Your task to perform on an android device: turn on the 12-hour format for clock Image 0: 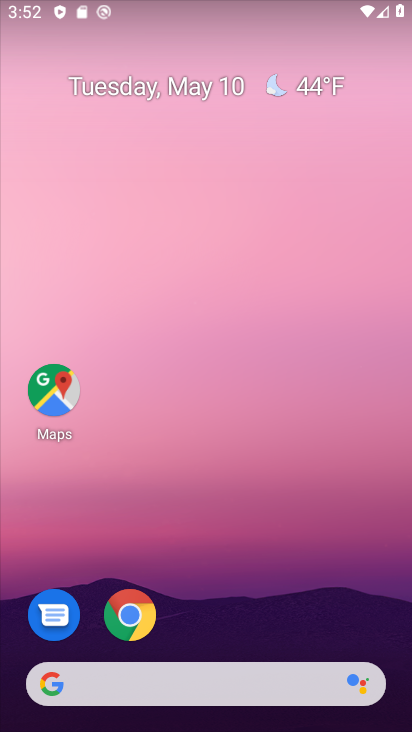
Step 0: drag from (196, 723) to (203, 358)
Your task to perform on an android device: turn on the 12-hour format for clock Image 1: 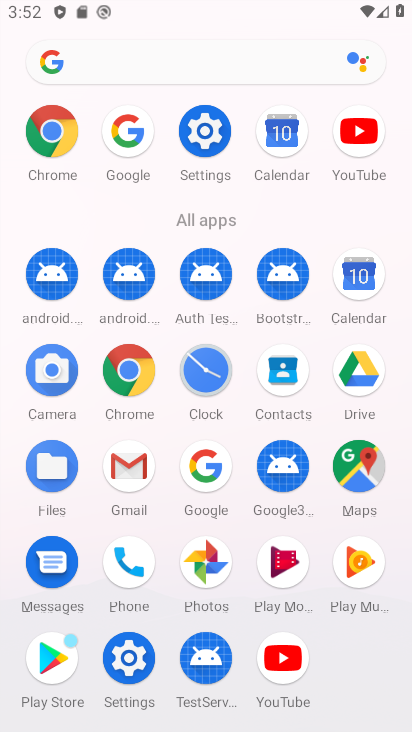
Step 1: click (207, 372)
Your task to perform on an android device: turn on the 12-hour format for clock Image 2: 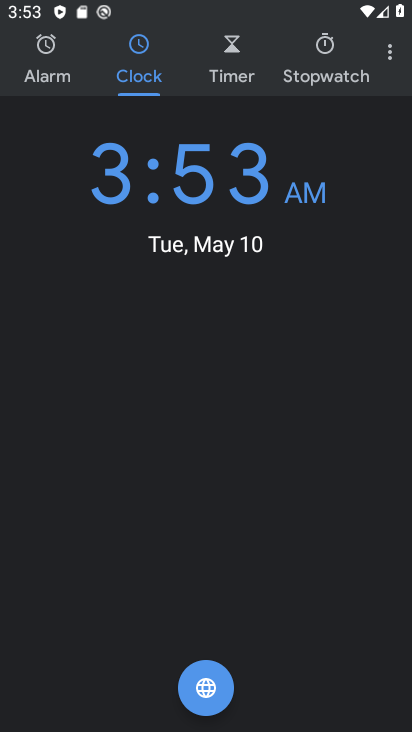
Step 2: click (390, 55)
Your task to perform on an android device: turn on the 12-hour format for clock Image 3: 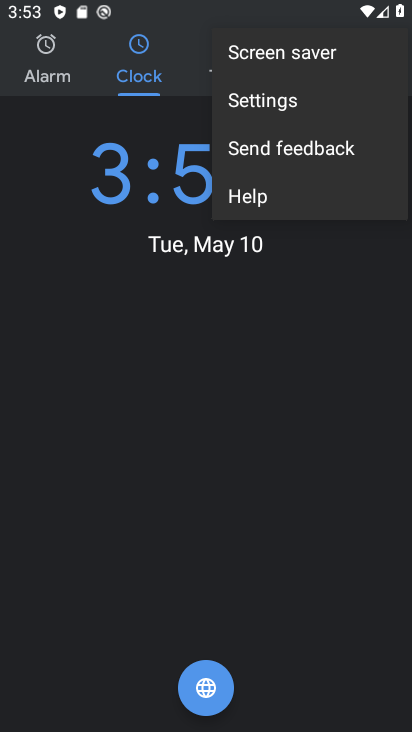
Step 3: click (256, 108)
Your task to perform on an android device: turn on the 12-hour format for clock Image 4: 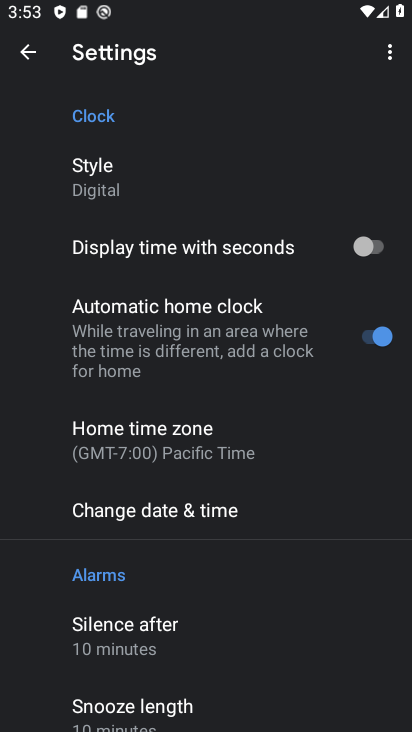
Step 4: click (172, 509)
Your task to perform on an android device: turn on the 12-hour format for clock Image 5: 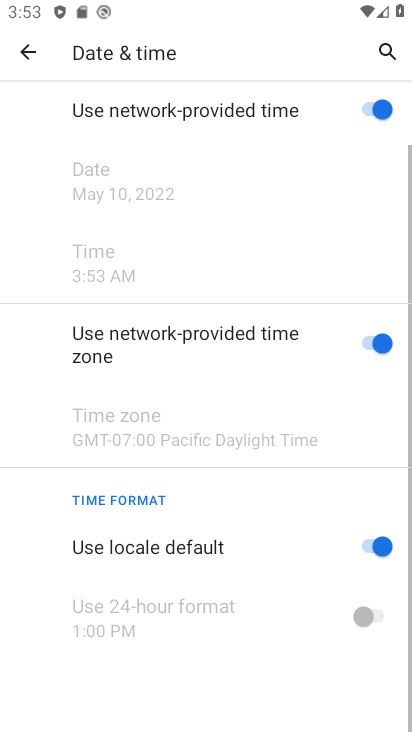
Step 5: task complete